Your task to perform on an android device: Open location settings Image 0: 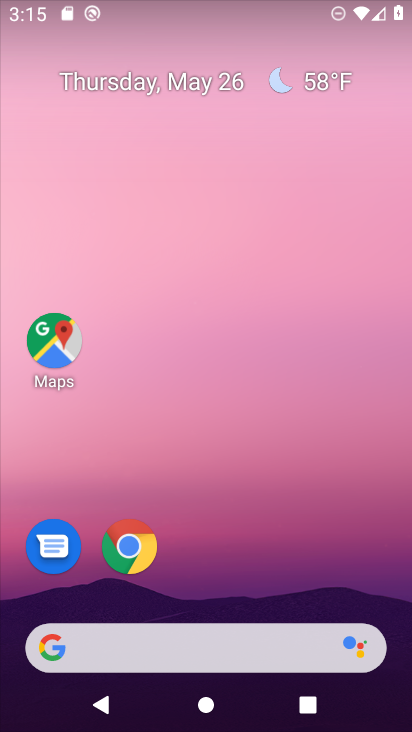
Step 0: drag from (223, 607) to (224, 86)
Your task to perform on an android device: Open location settings Image 1: 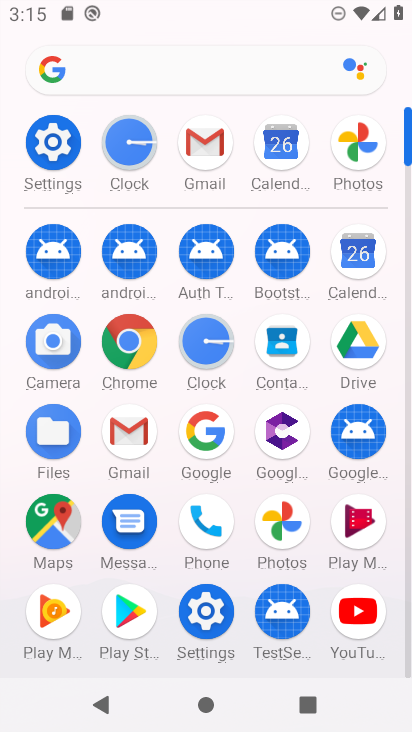
Step 1: click (205, 605)
Your task to perform on an android device: Open location settings Image 2: 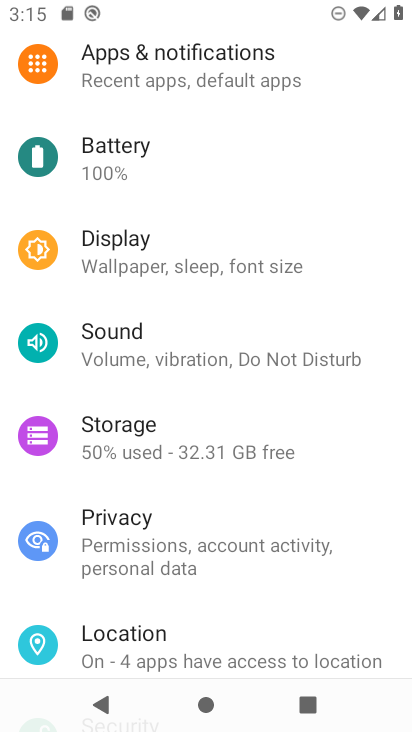
Step 2: click (200, 635)
Your task to perform on an android device: Open location settings Image 3: 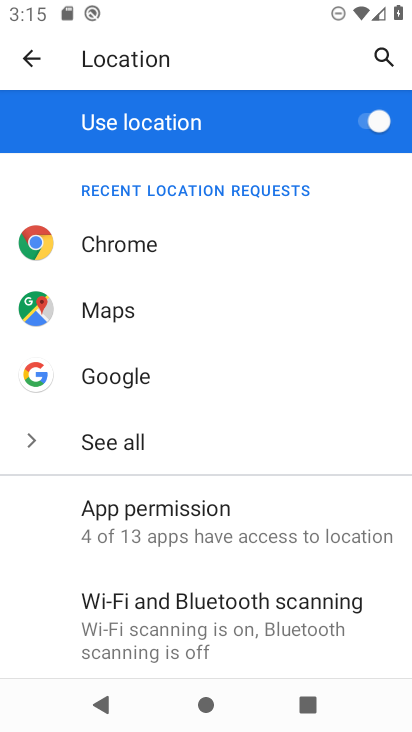
Step 3: drag from (211, 639) to (278, 205)
Your task to perform on an android device: Open location settings Image 4: 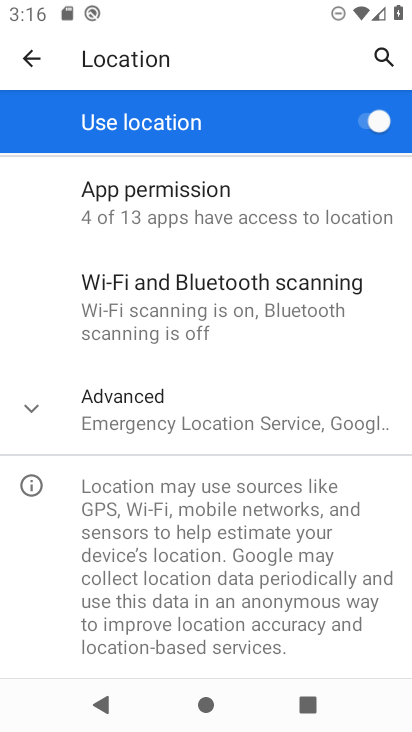
Step 4: click (39, 403)
Your task to perform on an android device: Open location settings Image 5: 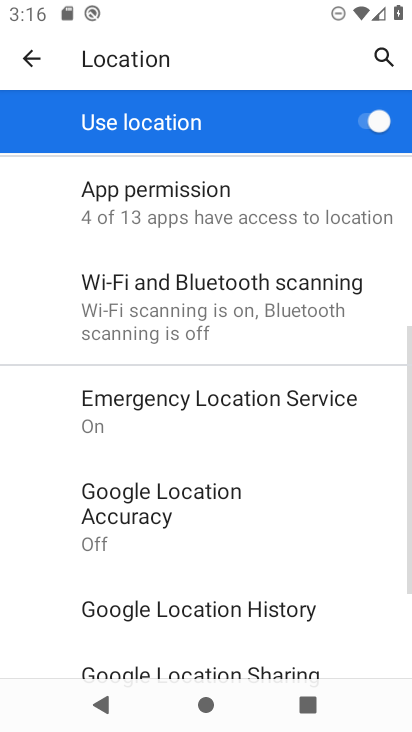
Step 5: task complete